Your task to perform on an android device: Set an alarm for 7am Image 0: 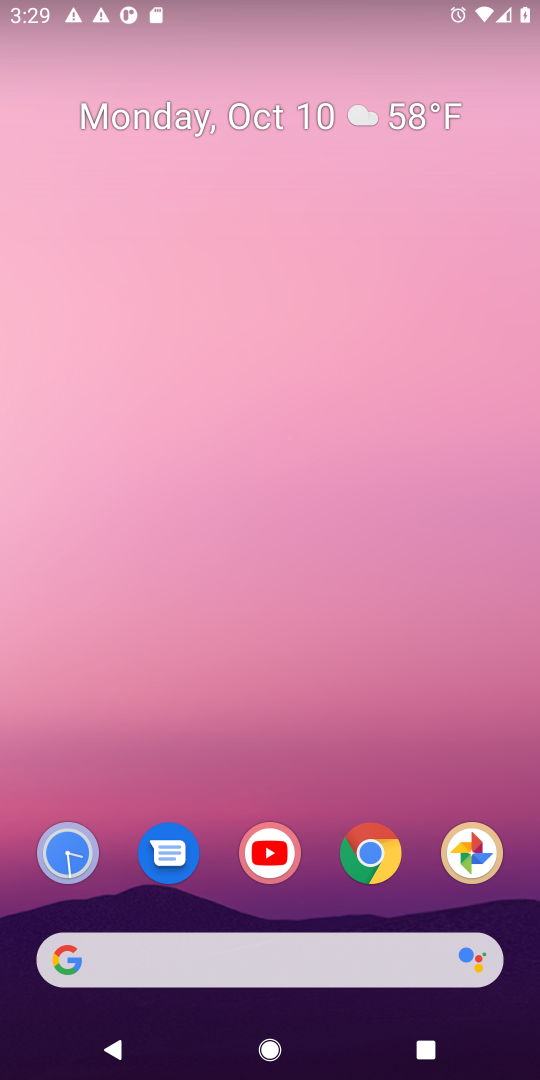
Step 0: click (59, 845)
Your task to perform on an android device: Set an alarm for 7am Image 1: 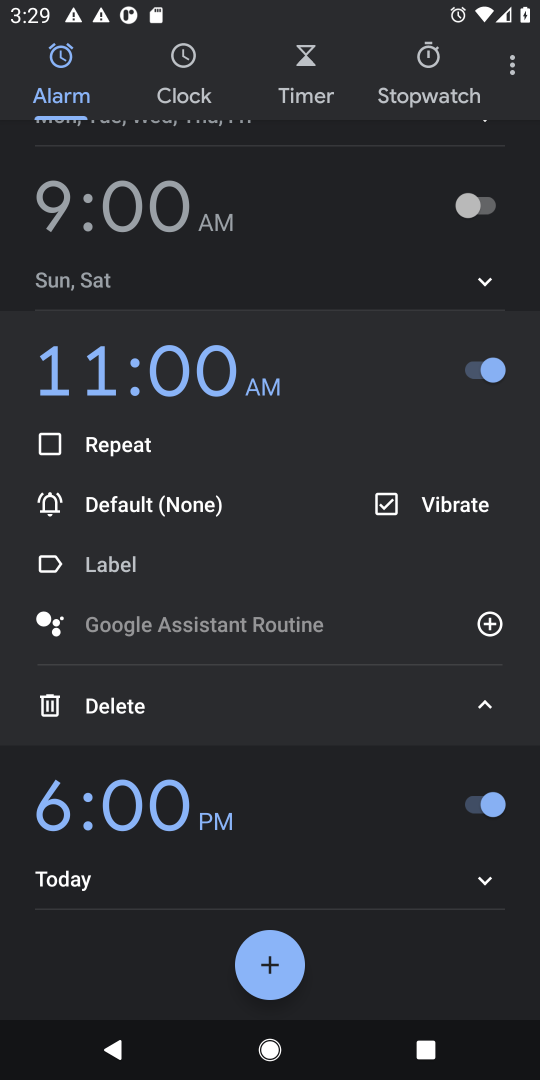
Step 1: click (266, 980)
Your task to perform on an android device: Set an alarm for 7am Image 2: 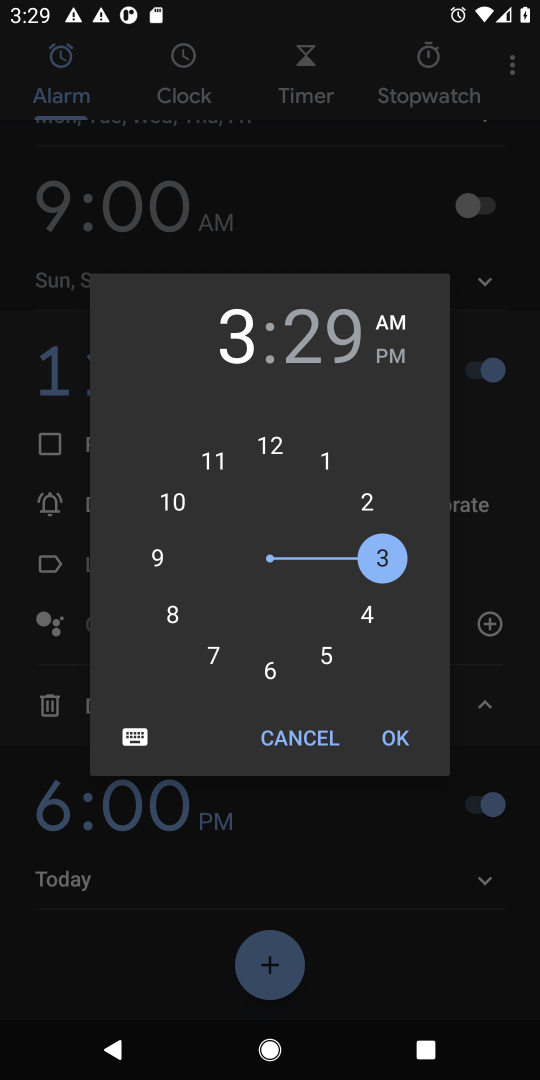
Step 2: click (216, 662)
Your task to perform on an android device: Set an alarm for 7am Image 3: 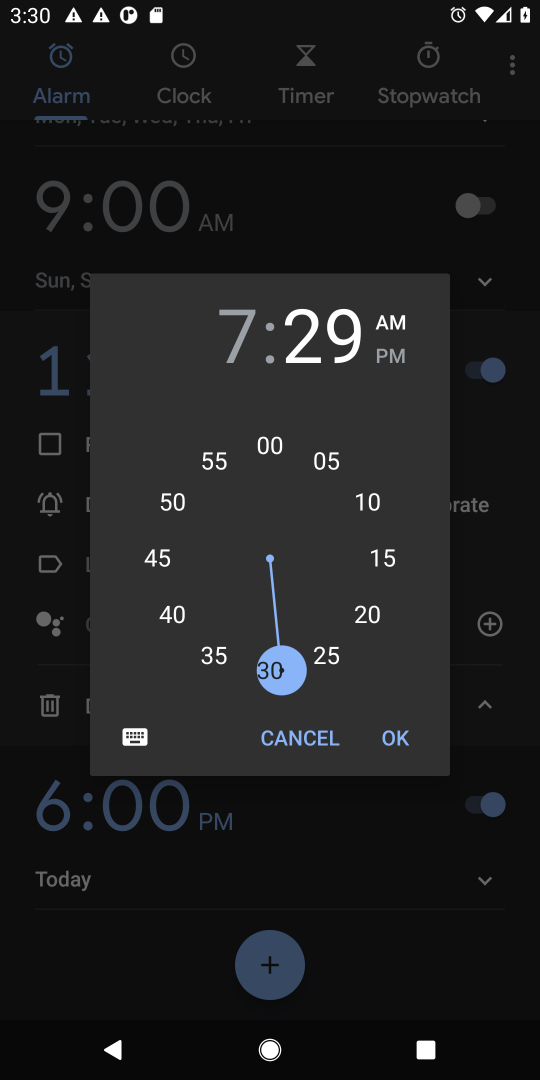
Step 3: click (268, 441)
Your task to perform on an android device: Set an alarm for 7am Image 4: 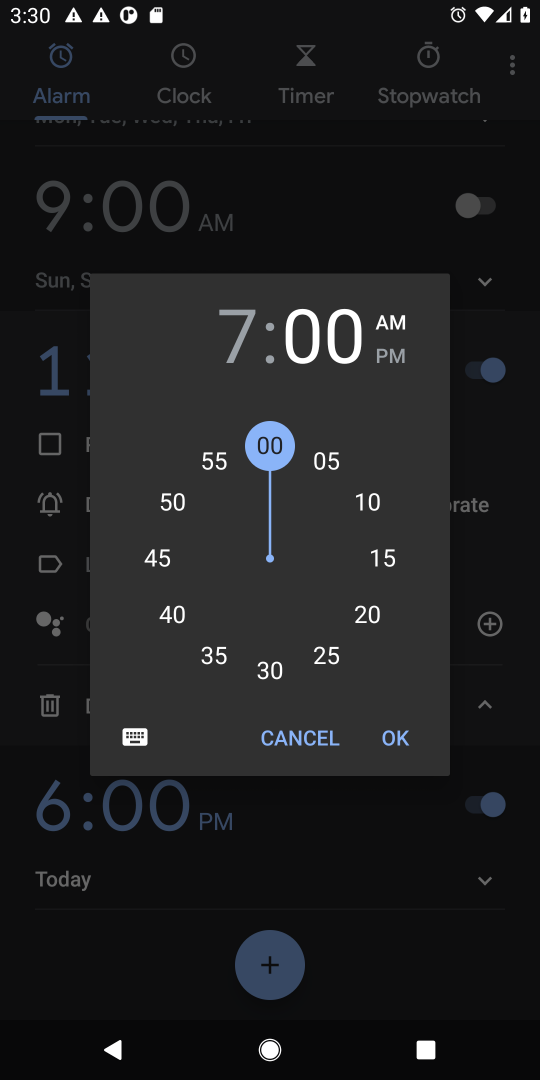
Step 4: click (394, 717)
Your task to perform on an android device: Set an alarm for 7am Image 5: 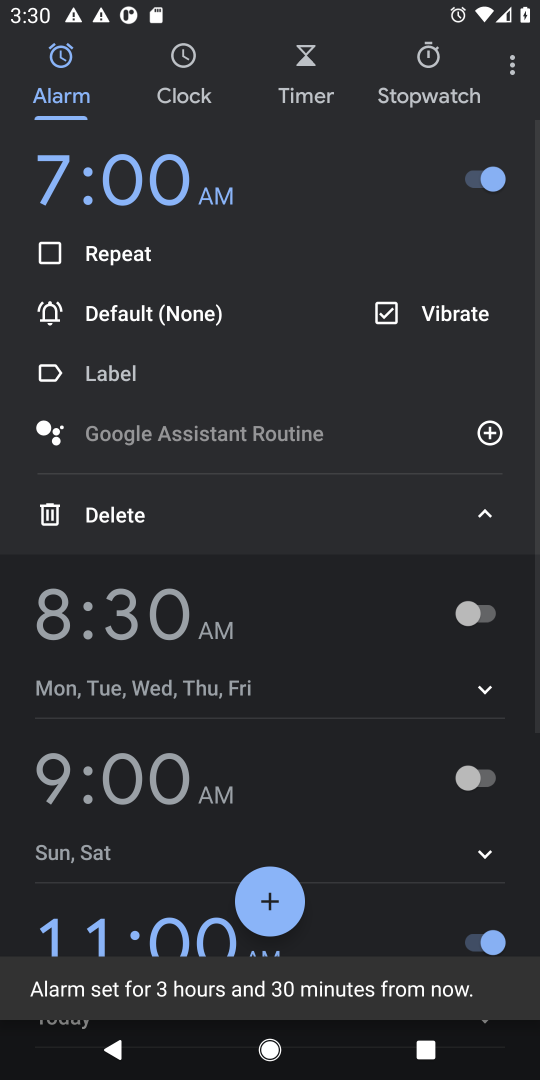
Step 5: task complete